Your task to perform on an android device: Open settings Image 0: 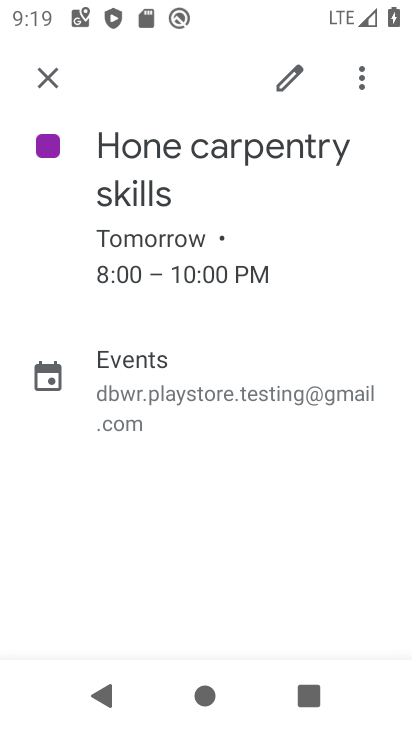
Step 0: press home button
Your task to perform on an android device: Open settings Image 1: 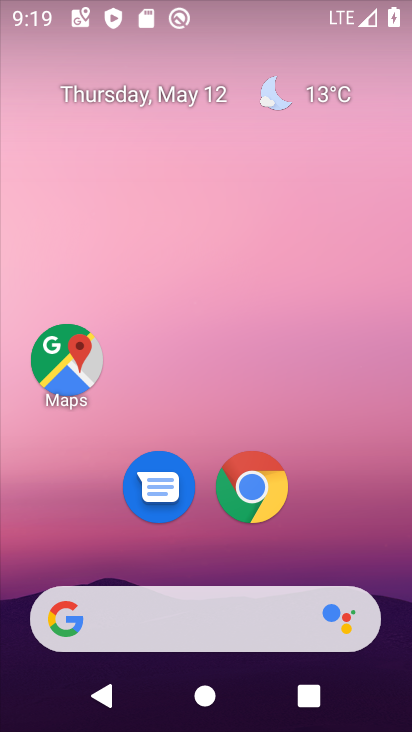
Step 1: drag from (345, 539) to (272, 32)
Your task to perform on an android device: Open settings Image 2: 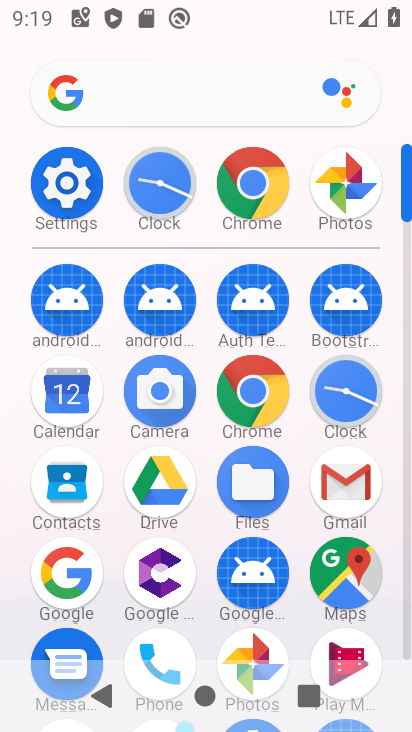
Step 2: click (58, 194)
Your task to perform on an android device: Open settings Image 3: 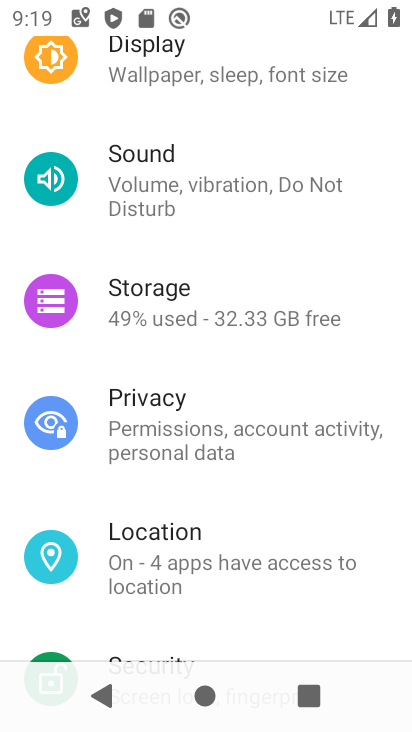
Step 3: task complete